Your task to perform on an android device: Open the calendar app, open the side menu, and click the "Day" option Image 0: 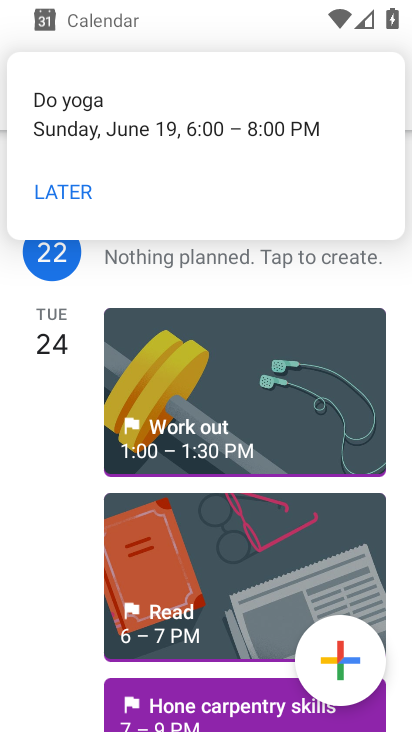
Step 0: click (72, 200)
Your task to perform on an android device: Open the calendar app, open the side menu, and click the "Day" option Image 1: 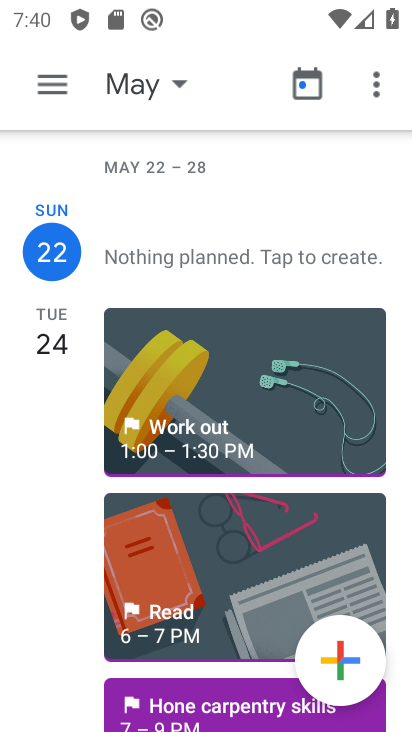
Step 1: click (48, 91)
Your task to perform on an android device: Open the calendar app, open the side menu, and click the "Day" option Image 2: 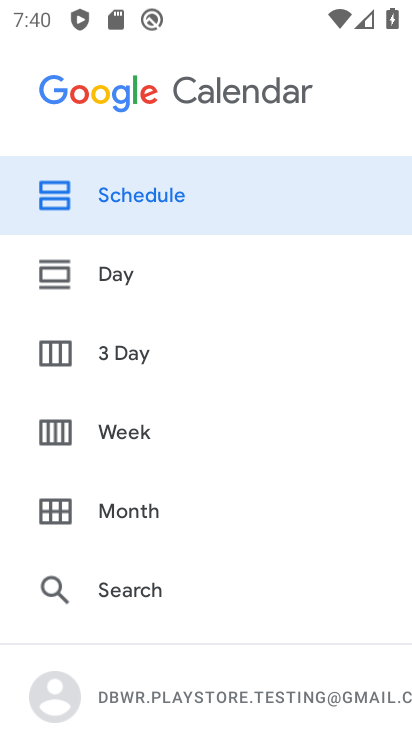
Step 2: click (102, 280)
Your task to perform on an android device: Open the calendar app, open the side menu, and click the "Day" option Image 3: 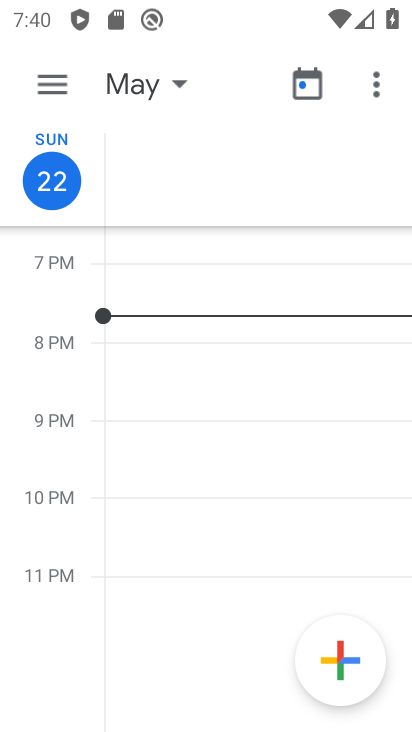
Step 3: task complete